Your task to perform on an android device: Go to Wikipedia Image 0: 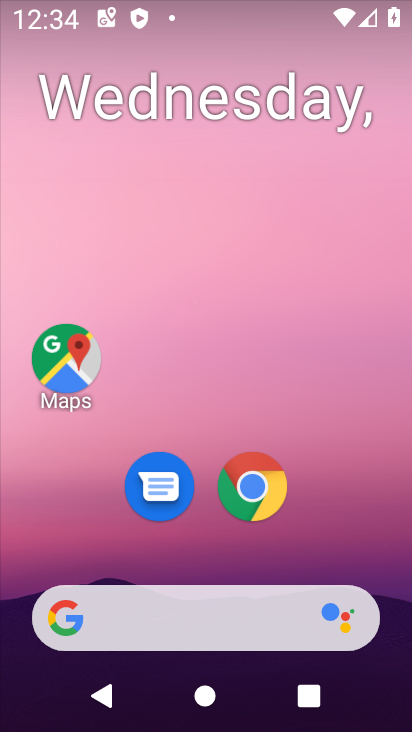
Step 0: drag from (352, 541) to (335, 129)
Your task to perform on an android device: Go to Wikipedia Image 1: 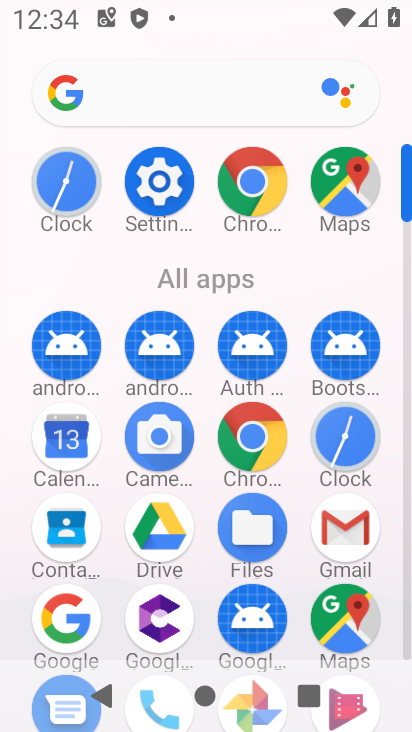
Step 1: click (241, 434)
Your task to perform on an android device: Go to Wikipedia Image 2: 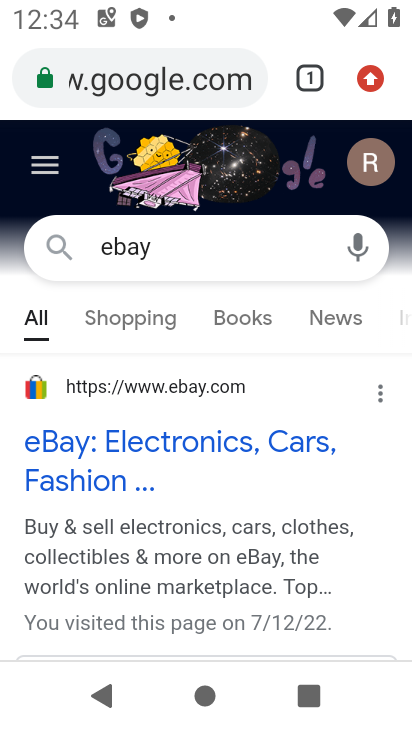
Step 2: click (216, 81)
Your task to perform on an android device: Go to Wikipedia Image 3: 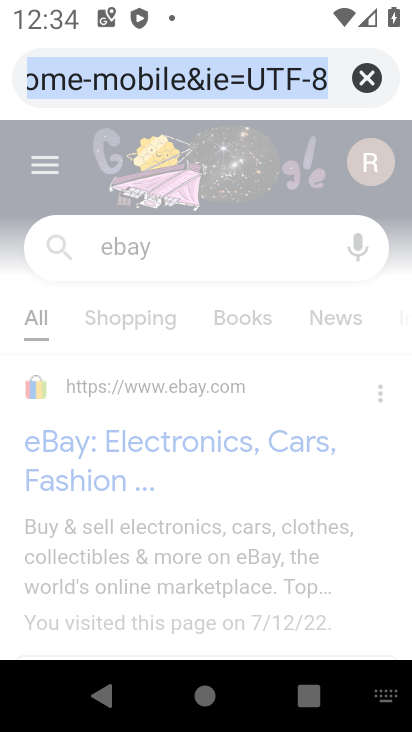
Step 3: type "wikipedia"
Your task to perform on an android device: Go to Wikipedia Image 4: 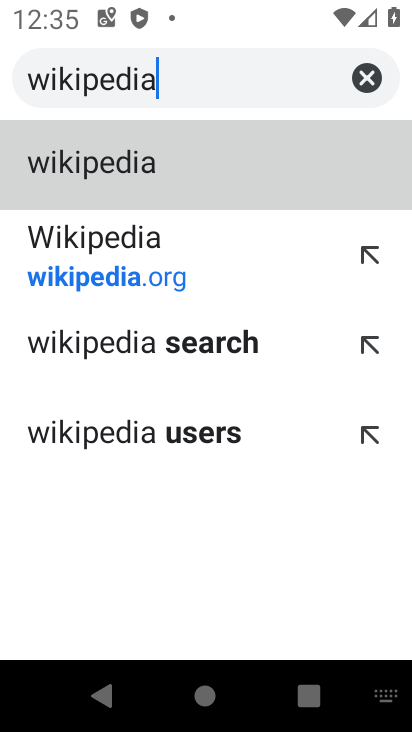
Step 4: click (237, 177)
Your task to perform on an android device: Go to Wikipedia Image 5: 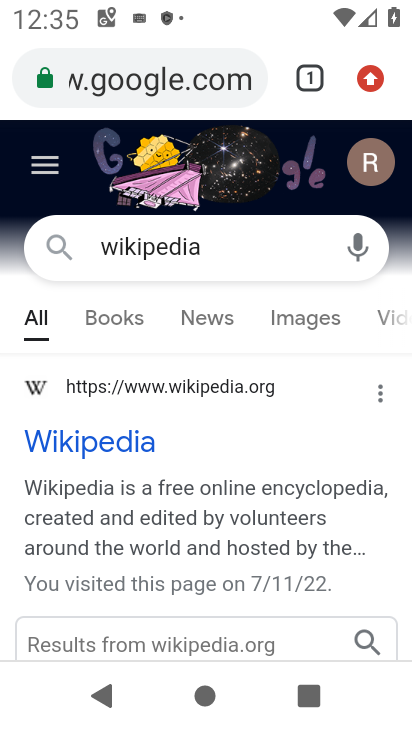
Step 5: task complete